Your task to perform on an android device: turn on javascript in the chrome app Image 0: 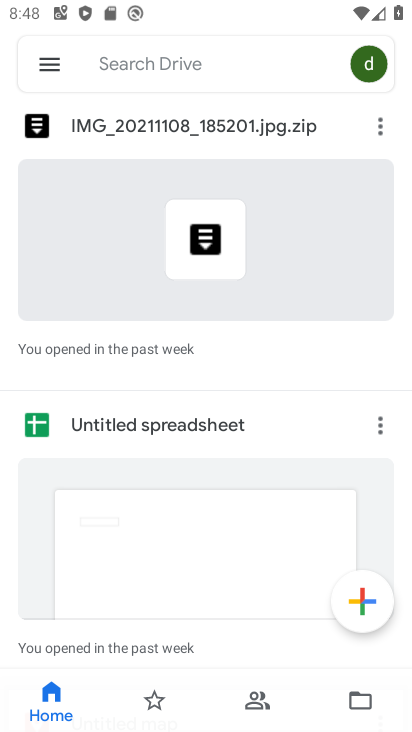
Step 0: press home button
Your task to perform on an android device: turn on javascript in the chrome app Image 1: 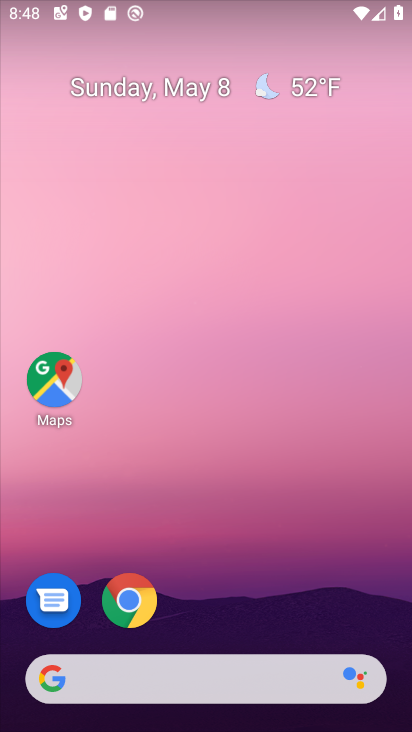
Step 1: drag from (197, 651) to (301, 35)
Your task to perform on an android device: turn on javascript in the chrome app Image 2: 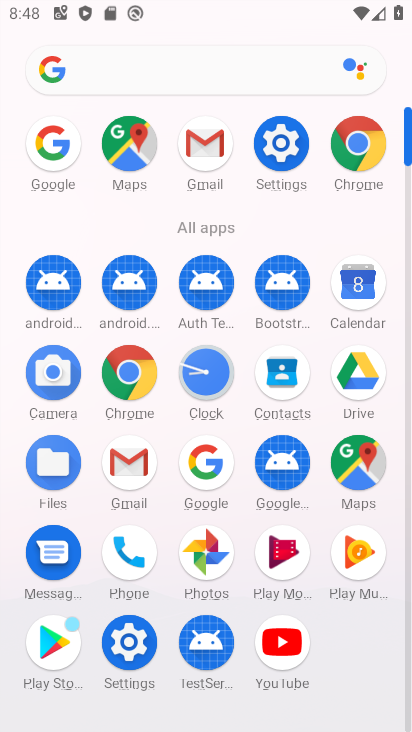
Step 2: click (366, 140)
Your task to perform on an android device: turn on javascript in the chrome app Image 3: 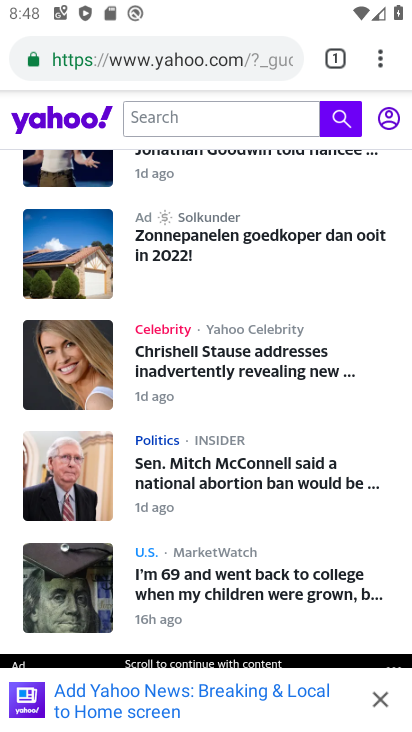
Step 3: click (379, 66)
Your task to perform on an android device: turn on javascript in the chrome app Image 4: 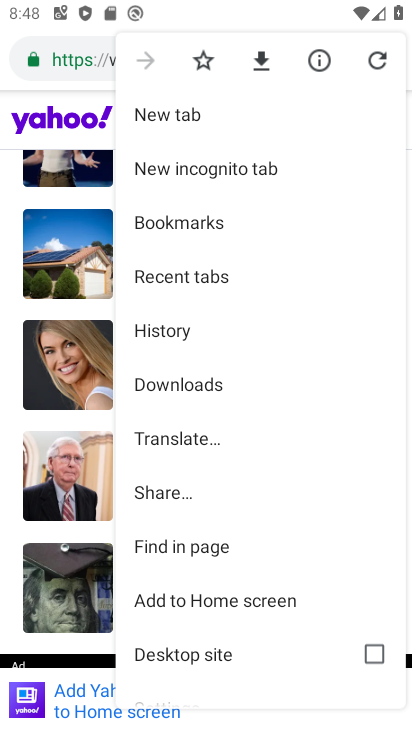
Step 4: drag from (187, 580) to (162, 87)
Your task to perform on an android device: turn on javascript in the chrome app Image 5: 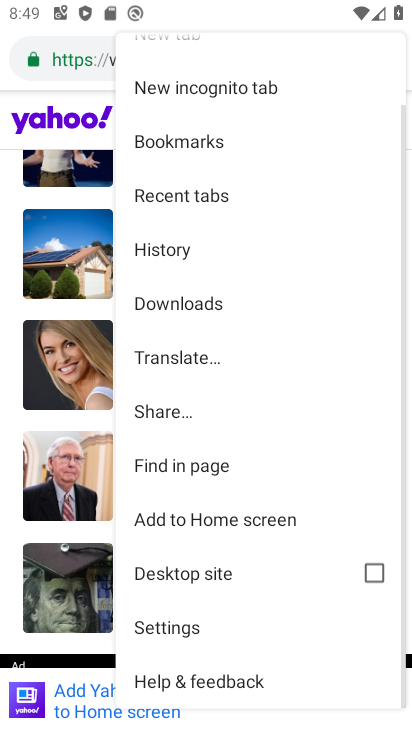
Step 5: click (171, 639)
Your task to perform on an android device: turn on javascript in the chrome app Image 6: 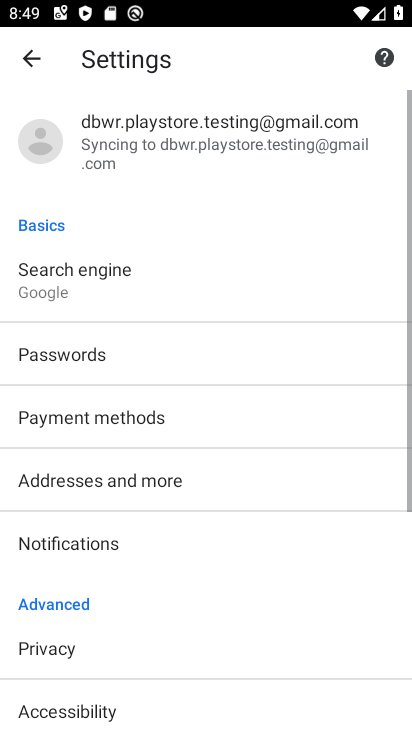
Step 6: drag from (217, 634) to (130, 103)
Your task to perform on an android device: turn on javascript in the chrome app Image 7: 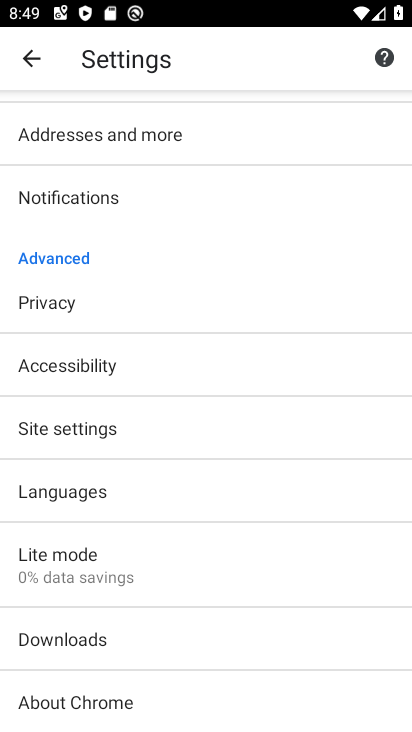
Step 7: click (69, 439)
Your task to perform on an android device: turn on javascript in the chrome app Image 8: 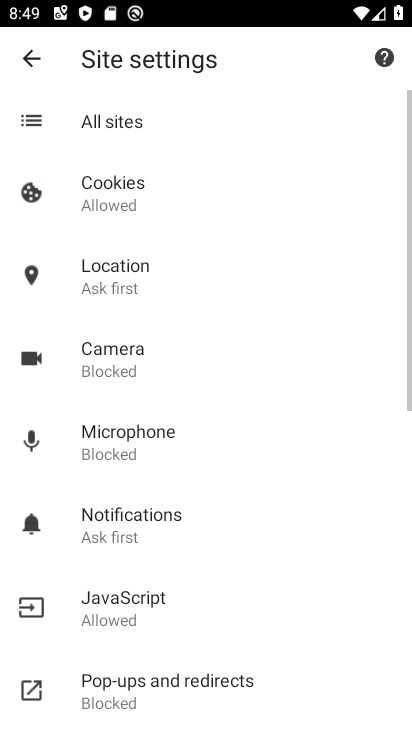
Step 8: click (148, 623)
Your task to perform on an android device: turn on javascript in the chrome app Image 9: 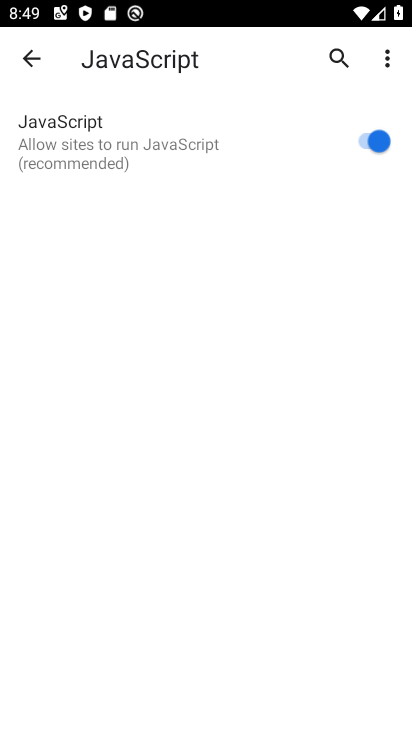
Step 9: task complete